Your task to perform on an android device: empty trash in google photos Image 0: 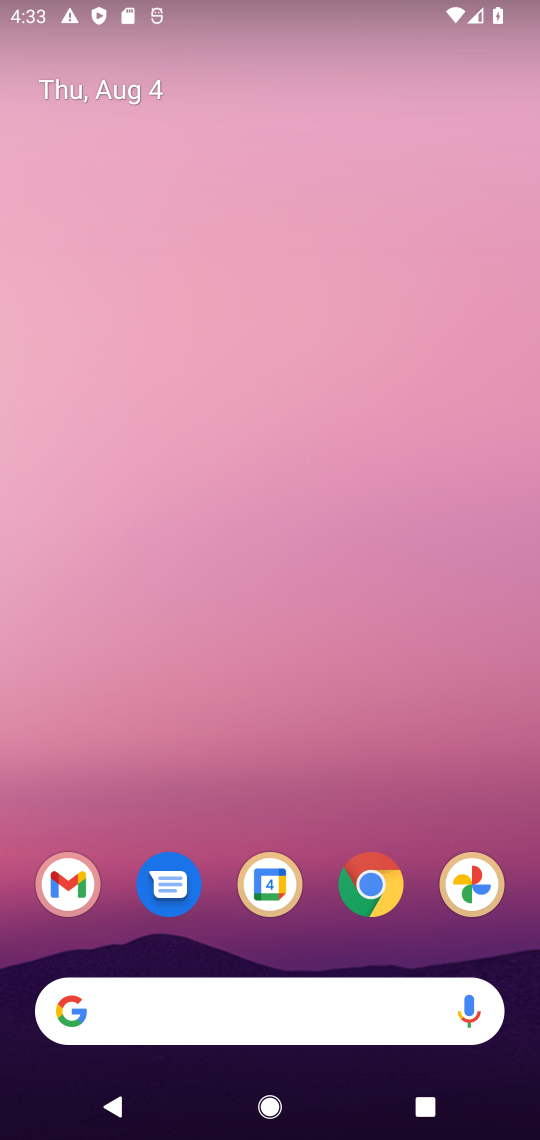
Step 0: drag from (325, 814) to (318, 301)
Your task to perform on an android device: empty trash in google photos Image 1: 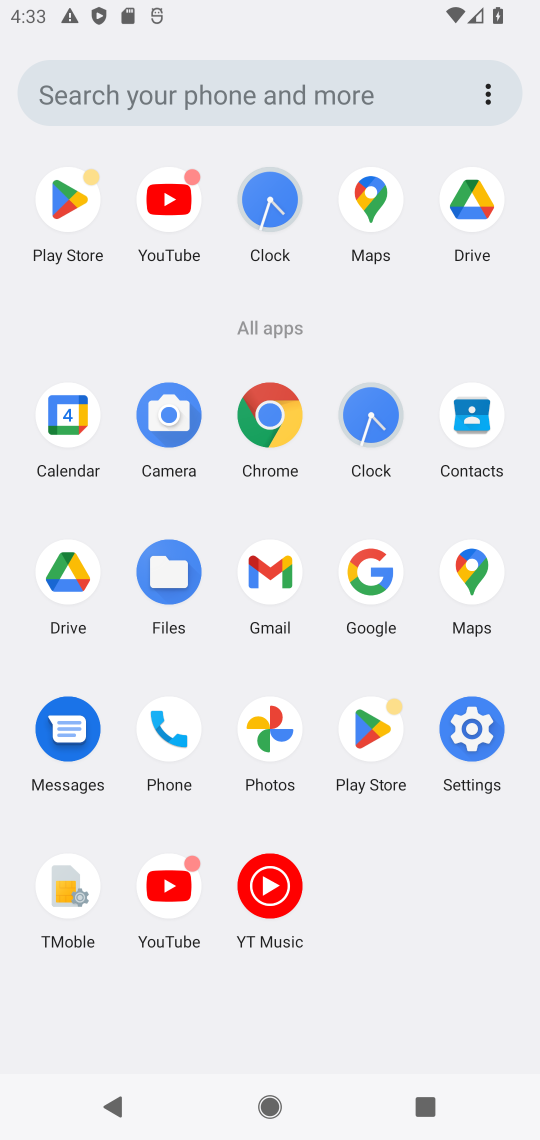
Step 1: click (285, 725)
Your task to perform on an android device: empty trash in google photos Image 2: 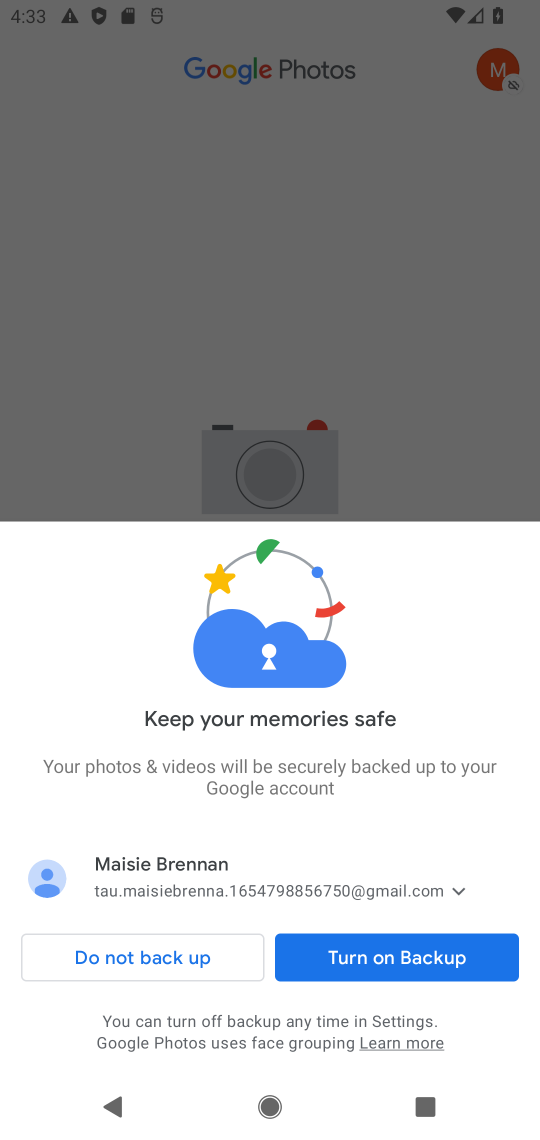
Step 2: click (377, 973)
Your task to perform on an android device: empty trash in google photos Image 3: 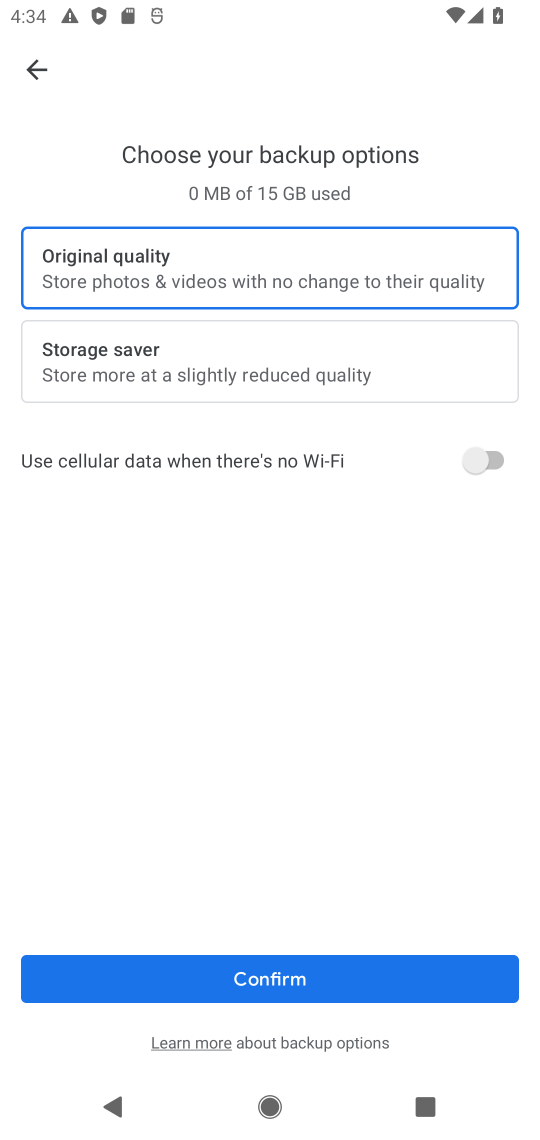
Step 3: click (297, 978)
Your task to perform on an android device: empty trash in google photos Image 4: 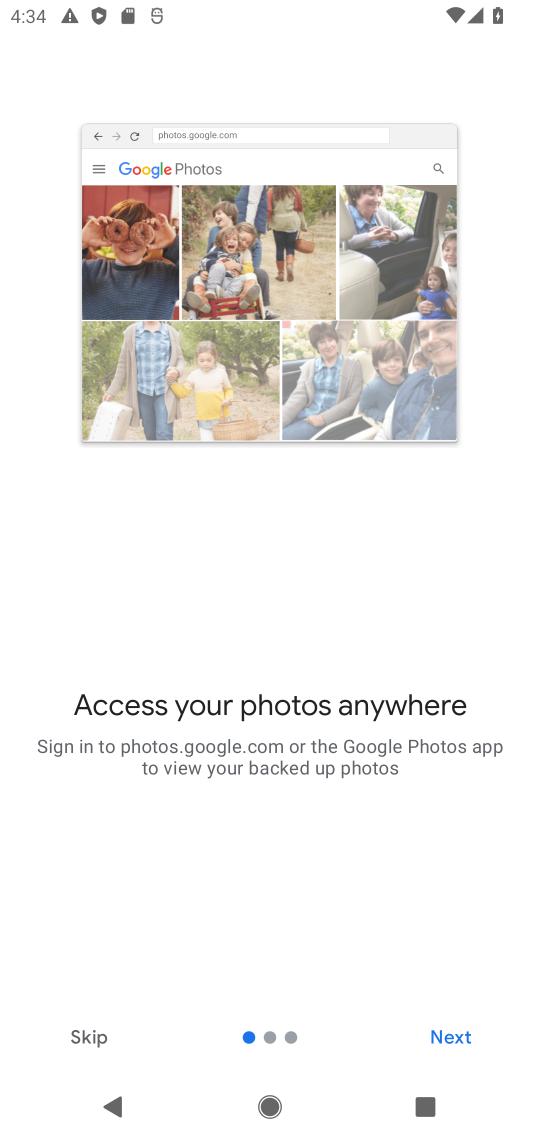
Step 4: click (95, 1031)
Your task to perform on an android device: empty trash in google photos Image 5: 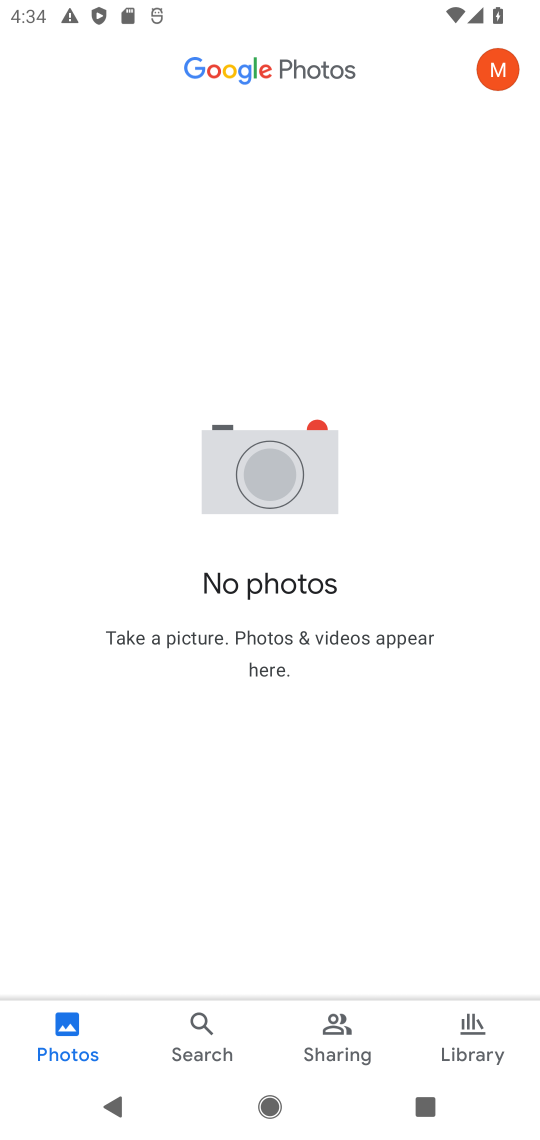
Step 5: click (449, 1027)
Your task to perform on an android device: empty trash in google photos Image 6: 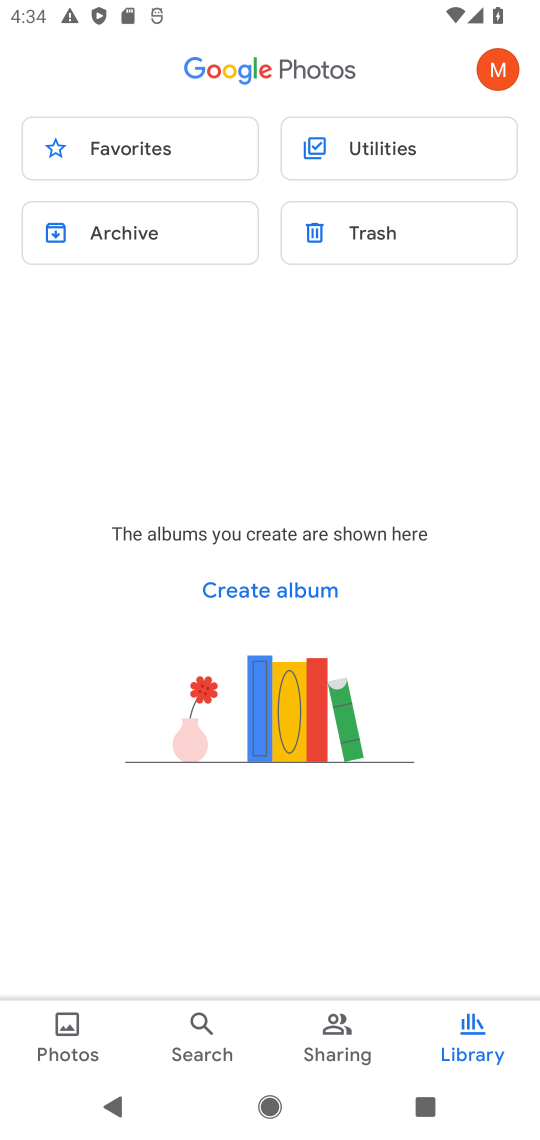
Step 6: click (391, 230)
Your task to perform on an android device: empty trash in google photos Image 7: 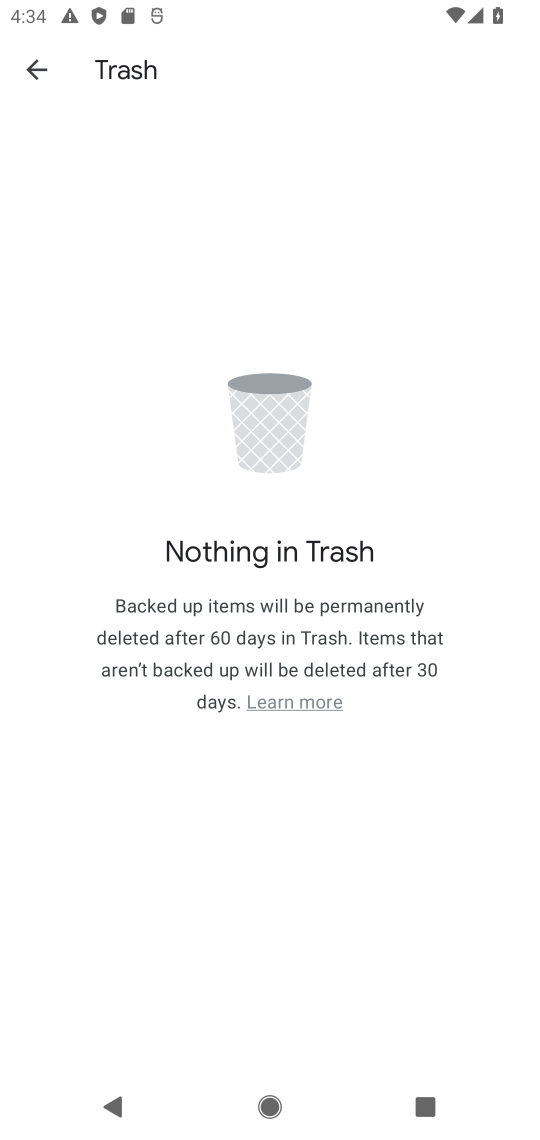
Step 7: task complete